Your task to perform on an android device: check out phone information Image 0: 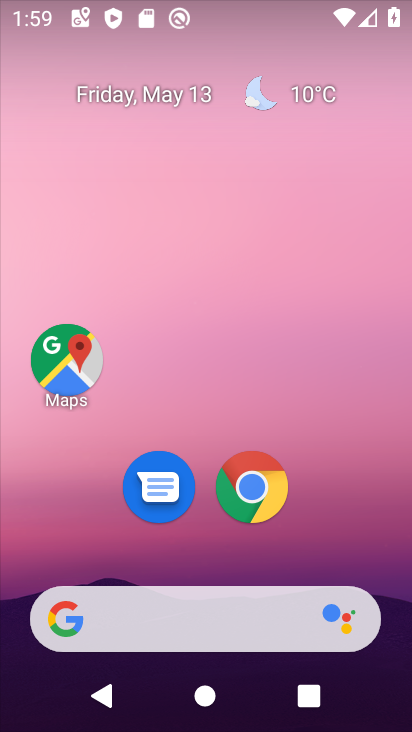
Step 0: drag from (197, 507) to (276, 134)
Your task to perform on an android device: check out phone information Image 1: 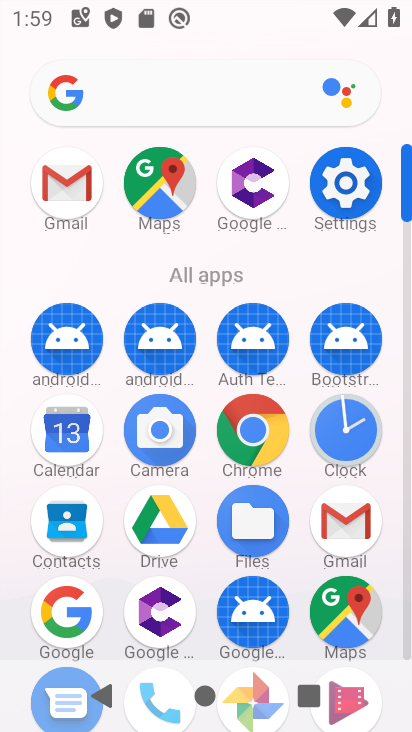
Step 1: click (335, 187)
Your task to perform on an android device: check out phone information Image 2: 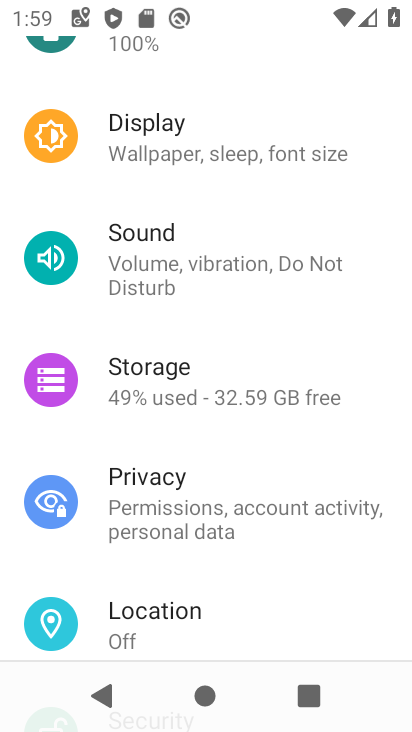
Step 2: drag from (204, 533) to (261, 127)
Your task to perform on an android device: check out phone information Image 3: 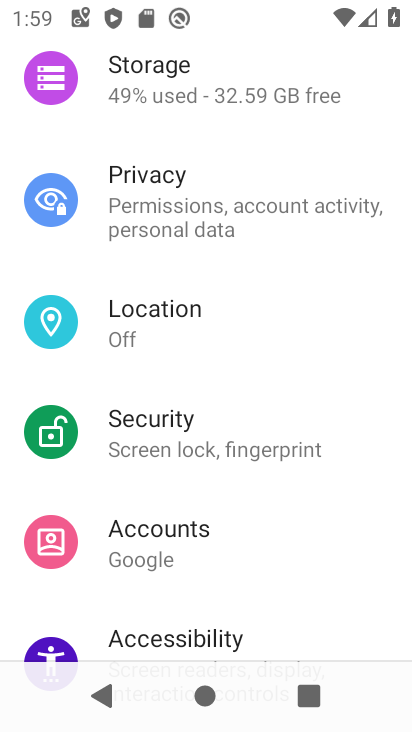
Step 3: drag from (176, 571) to (264, 148)
Your task to perform on an android device: check out phone information Image 4: 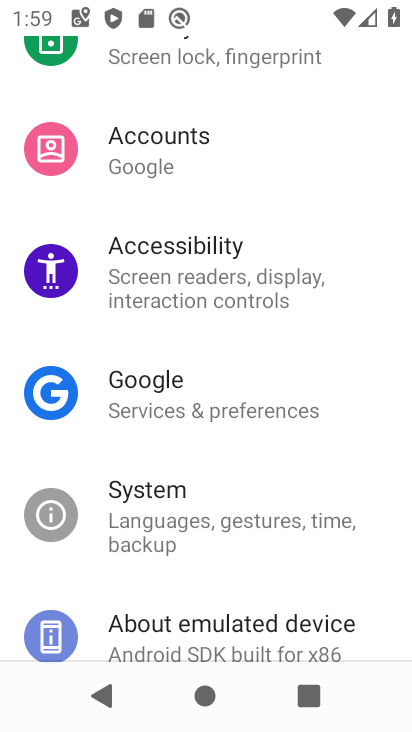
Step 4: click (218, 646)
Your task to perform on an android device: check out phone information Image 5: 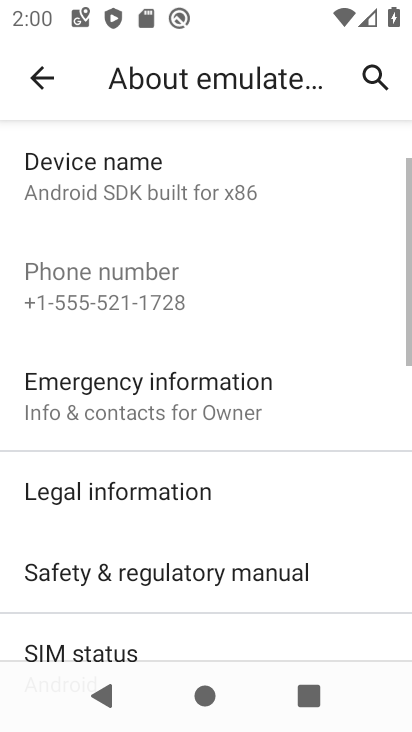
Step 5: task complete